Your task to perform on an android device: install app "McDonald's" Image 0: 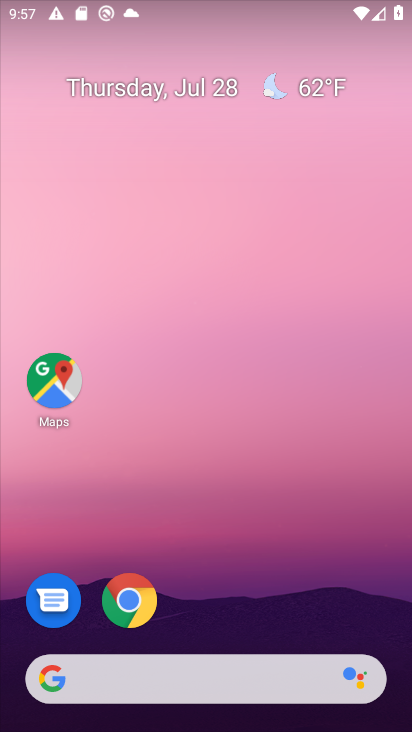
Step 0: drag from (220, 618) to (233, 3)
Your task to perform on an android device: install app "McDonald's" Image 1: 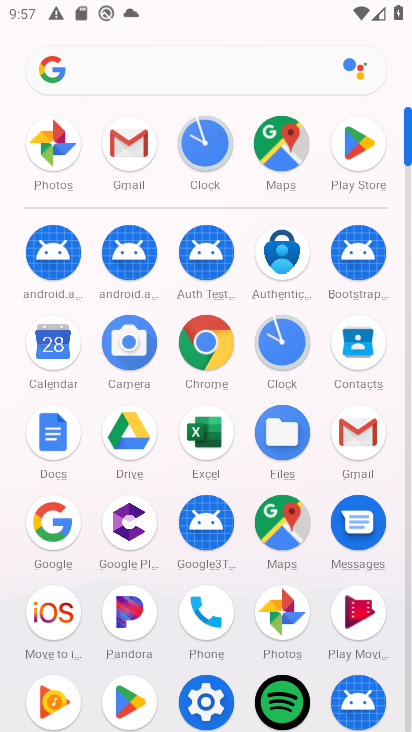
Step 1: click (349, 145)
Your task to perform on an android device: install app "McDonald's" Image 2: 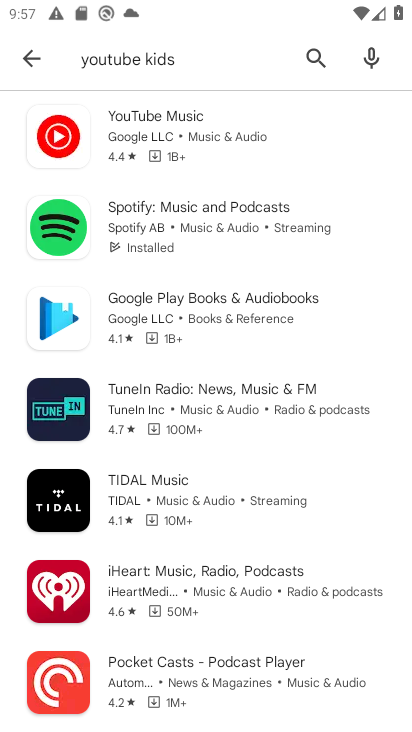
Step 2: click (310, 60)
Your task to perform on an android device: install app "McDonald's" Image 3: 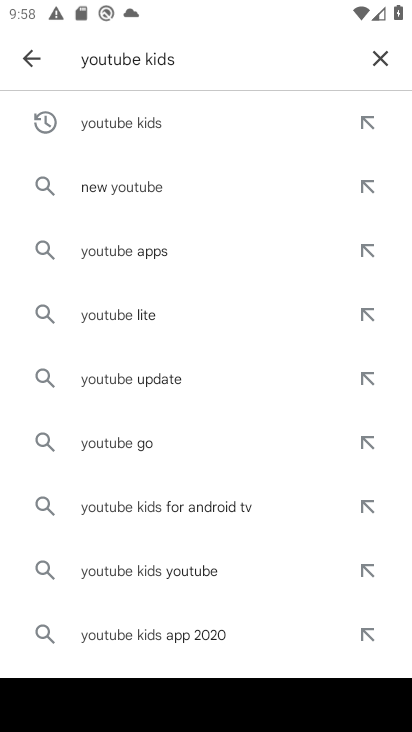
Step 3: click (372, 60)
Your task to perform on an android device: install app "McDonald's" Image 4: 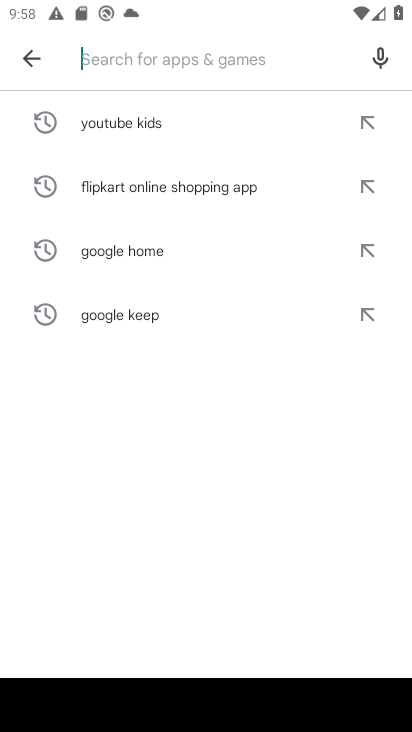
Step 4: type "McDonald's"
Your task to perform on an android device: install app "McDonald's" Image 5: 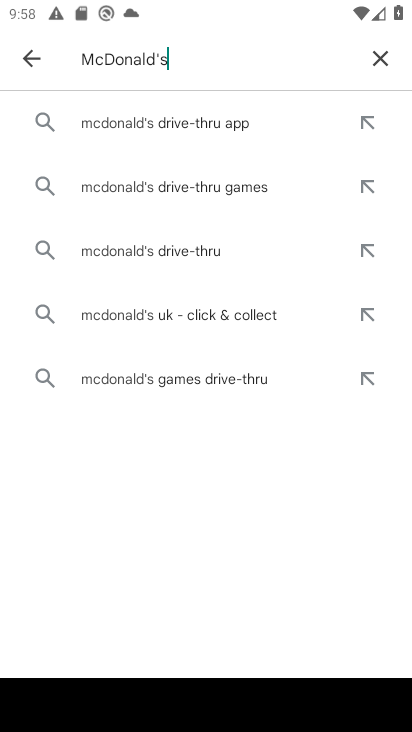
Step 5: click (142, 252)
Your task to perform on an android device: install app "McDonald's" Image 6: 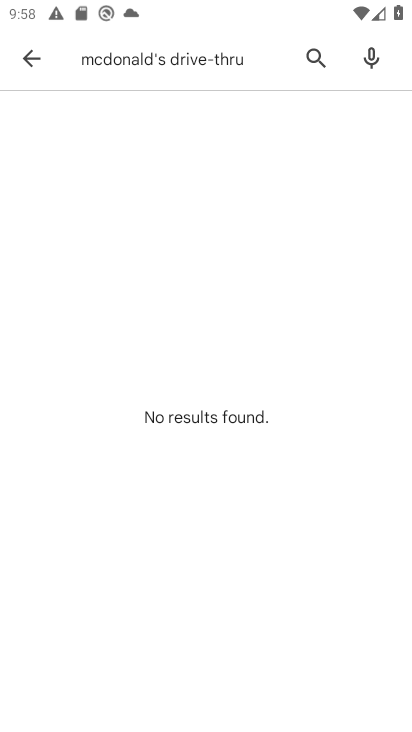
Step 6: task complete